Your task to perform on an android device: open a bookmark in the chrome app Image 0: 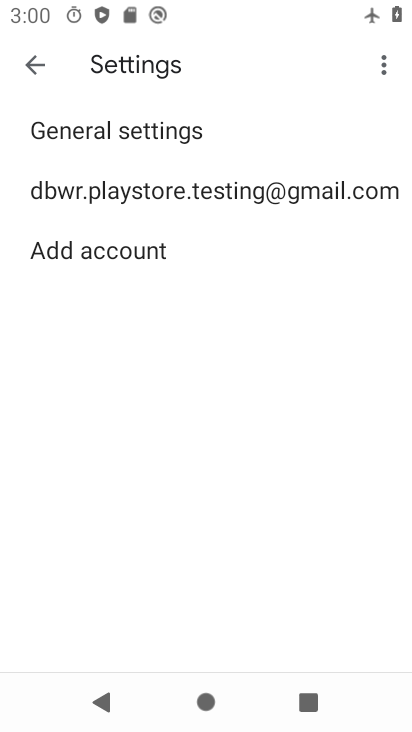
Step 0: click (267, 529)
Your task to perform on an android device: open a bookmark in the chrome app Image 1: 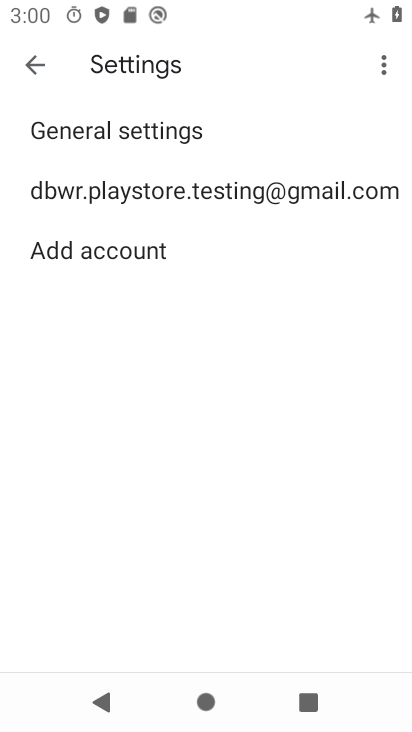
Step 1: press home button
Your task to perform on an android device: open a bookmark in the chrome app Image 2: 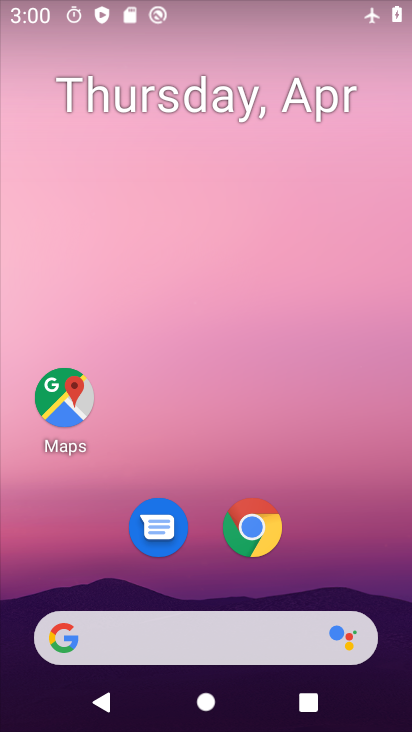
Step 2: click (247, 512)
Your task to perform on an android device: open a bookmark in the chrome app Image 3: 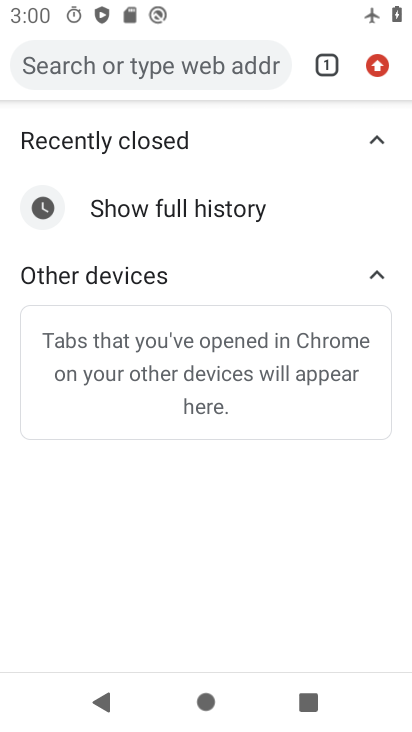
Step 3: task complete